Your task to perform on an android device: Open Google Chrome and click the shortcut for Amazon.com Image 0: 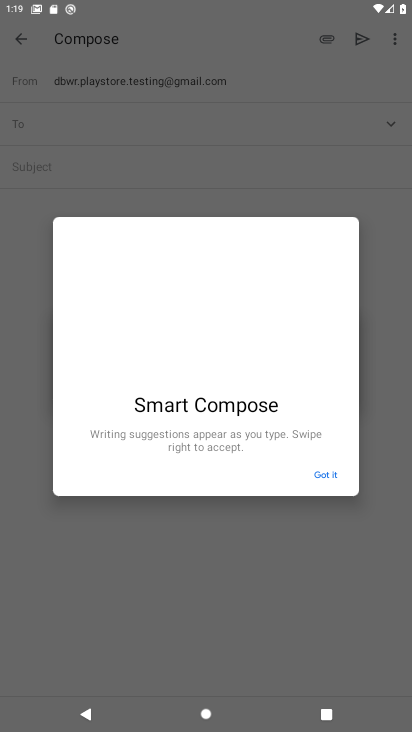
Step 0: press home button
Your task to perform on an android device: Open Google Chrome and click the shortcut for Amazon.com Image 1: 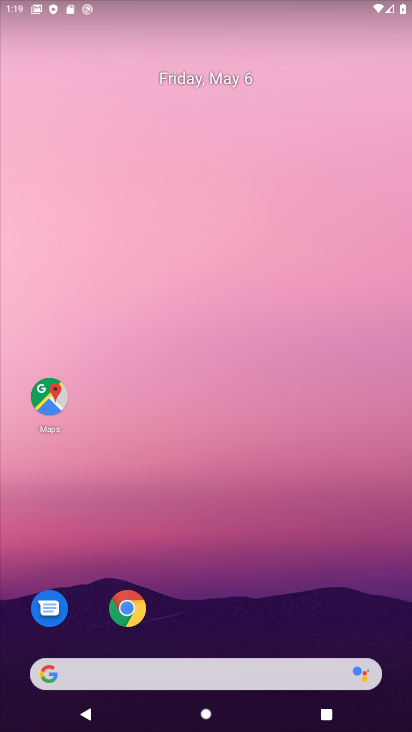
Step 1: click (121, 605)
Your task to perform on an android device: Open Google Chrome and click the shortcut for Amazon.com Image 2: 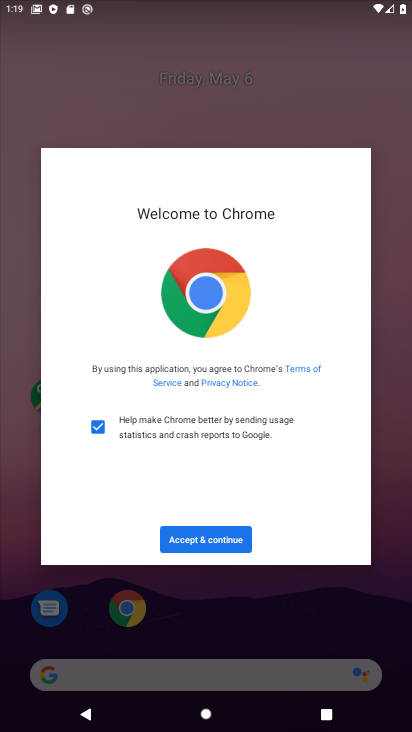
Step 2: click (166, 548)
Your task to perform on an android device: Open Google Chrome and click the shortcut for Amazon.com Image 3: 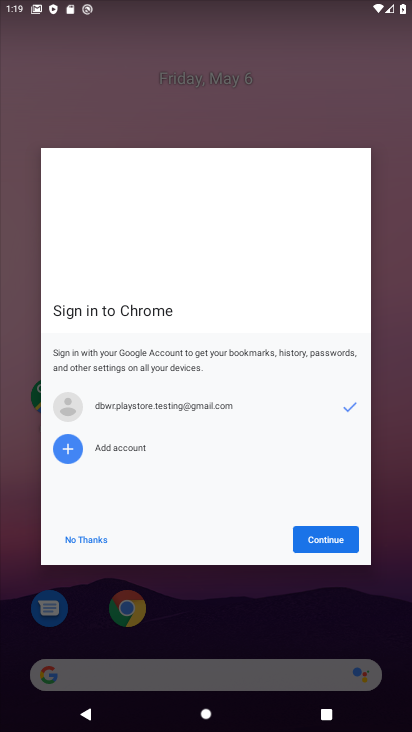
Step 3: click (336, 542)
Your task to perform on an android device: Open Google Chrome and click the shortcut for Amazon.com Image 4: 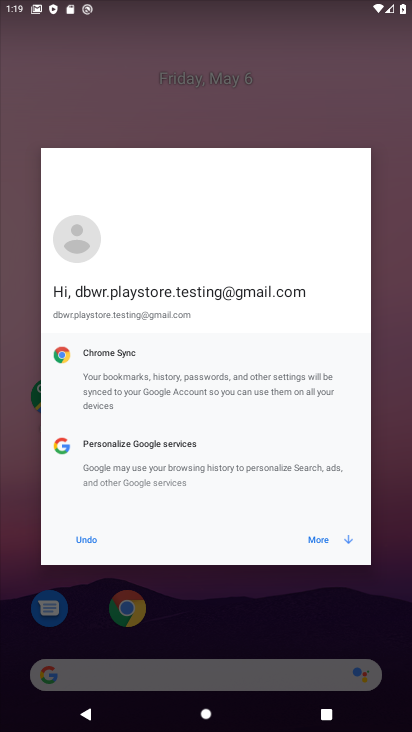
Step 4: click (325, 540)
Your task to perform on an android device: Open Google Chrome and click the shortcut for Amazon.com Image 5: 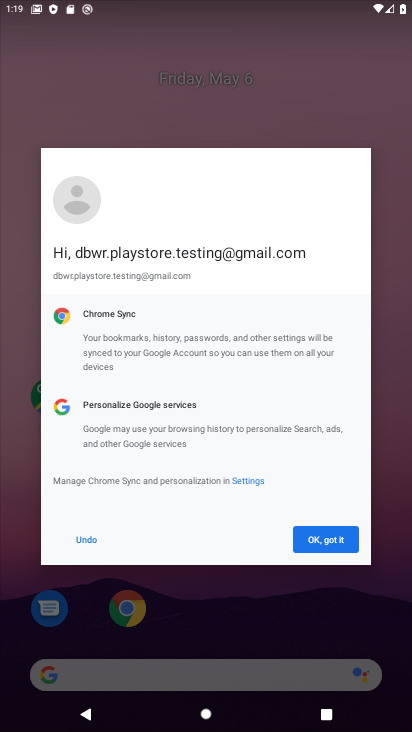
Step 5: click (325, 540)
Your task to perform on an android device: Open Google Chrome and click the shortcut for Amazon.com Image 6: 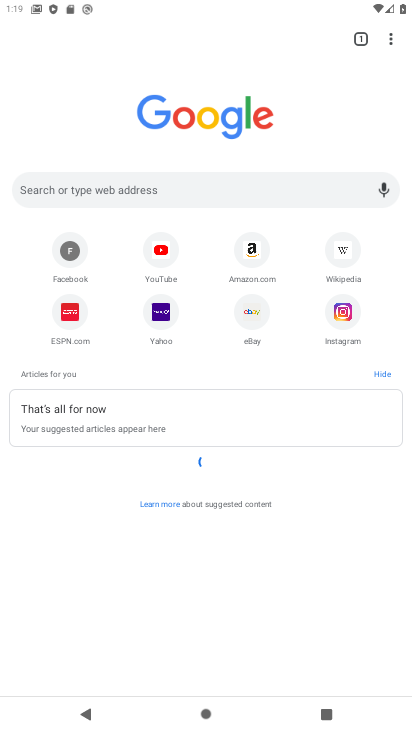
Step 6: click (242, 268)
Your task to perform on an android device: Open Google Chrome and click the shortcut for Amazon.com Image 7: 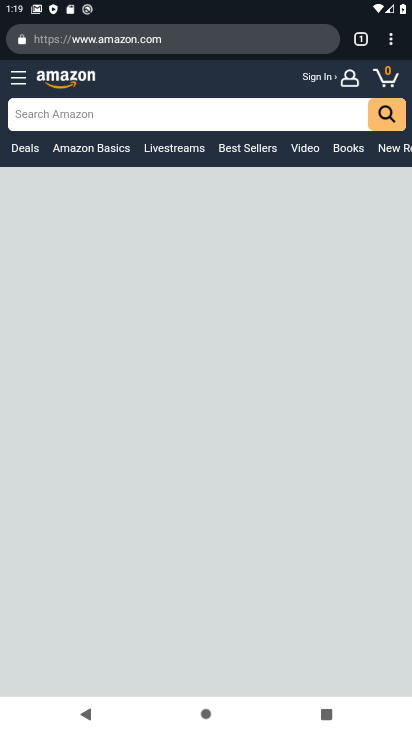
Step 7: task complete